Your task to perform on an android device: turn off sleep mode Image 0: 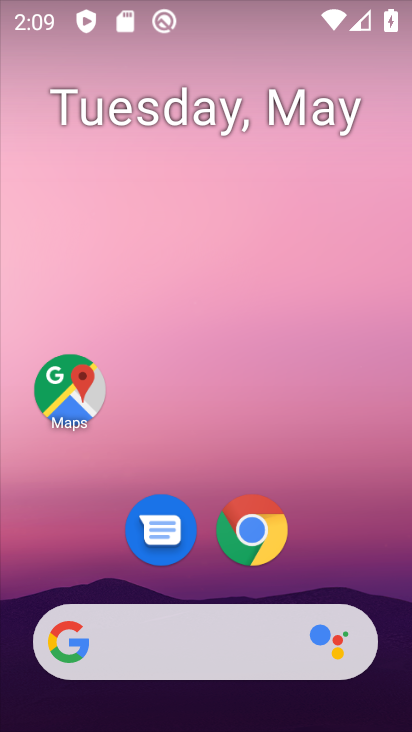
Step 0: drag from (221, 572) to (223, 177)
Your task to perform on an android device: turn off sleep mode Image 1: 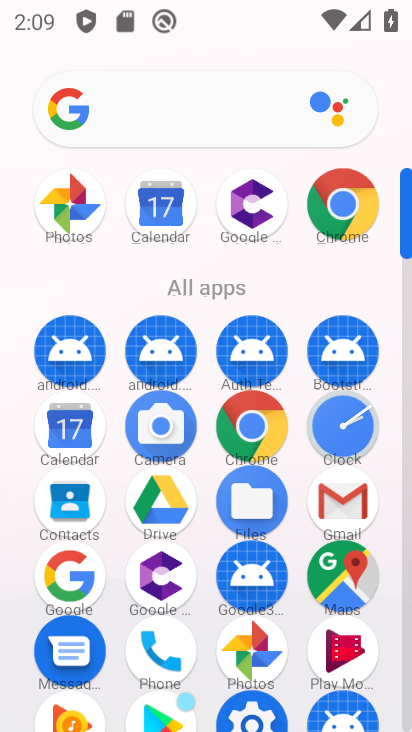
Step 1: click (264, 717)
Your task to perform on an android device: turn off sleep mode Image 2: 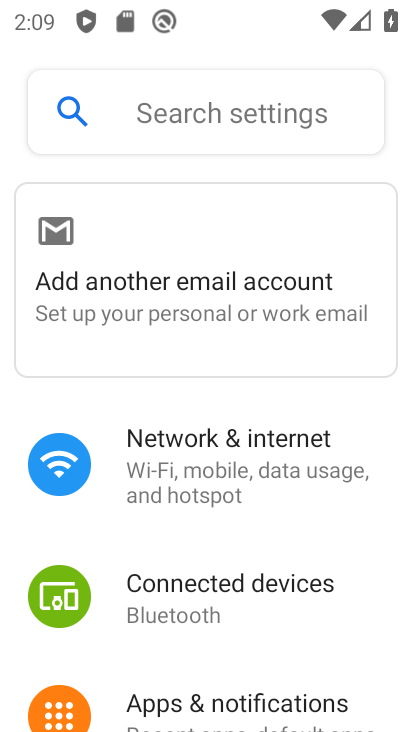
Step 2: drag from (290, 573) to (277, 308)
Your task to perform on an android device: turn off sleep mode Image 3: 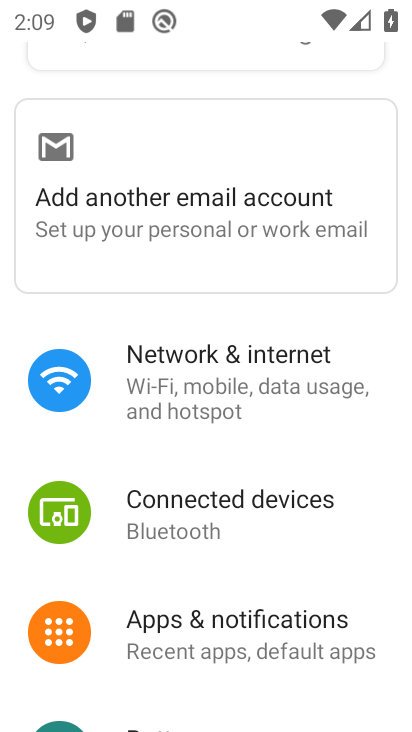
Step 3: drag from (276, 566) to (266, 248)
Your task to perform on an android device: turn off sleep mode Image 4: 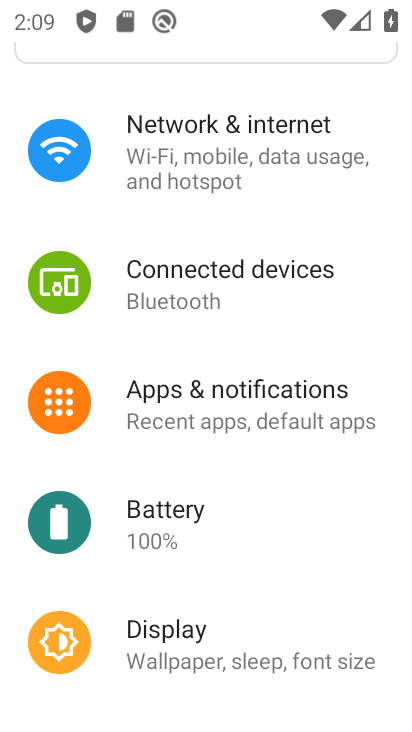
Step 4: click (233, 633)
Your task to perform on an android device: turn off sleep mode Image 5: 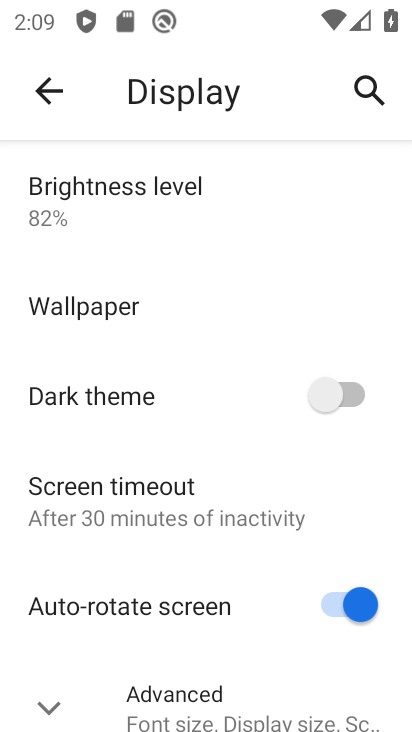
Step 5: click (146, 481)
Your task to perform on an android device: turn off sleep mode Image 6: 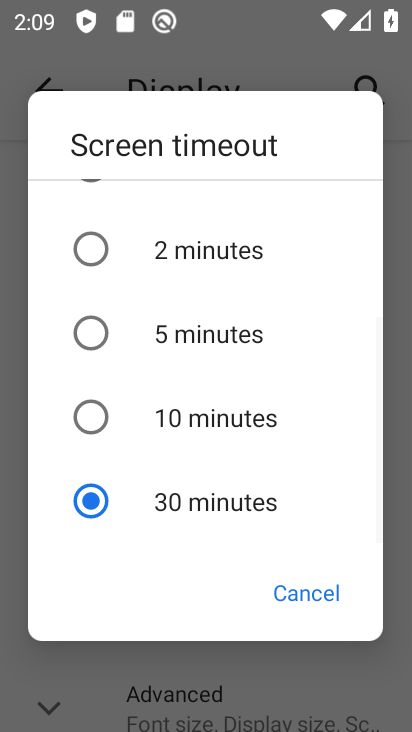
Step 6: drag from (160, 244) to (160, 437)
Your task to perform on an android device: turn off sleep mode Image 7: 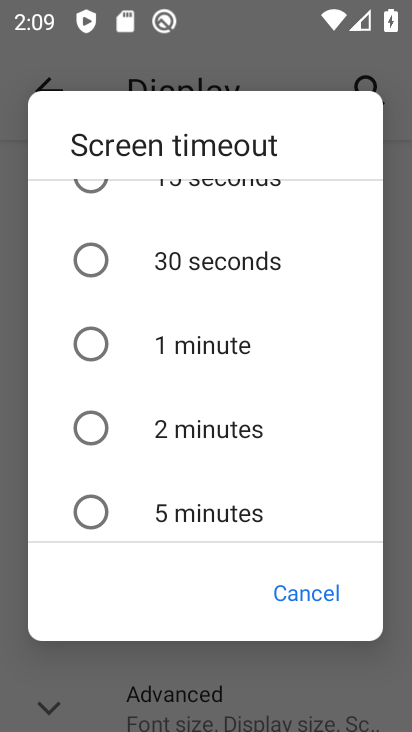
Step 7: click (160, 267)
Your task to perform on an android device: turn off sleep mode Image 8: 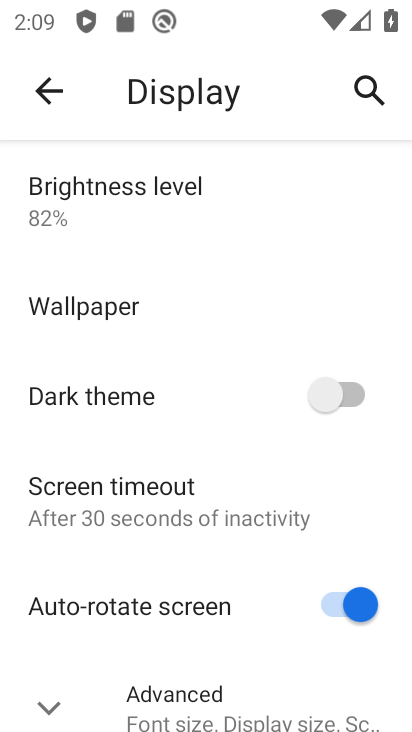
Step 8: task complete